Your task to perform on an android device: change keyboard looks Image 0: 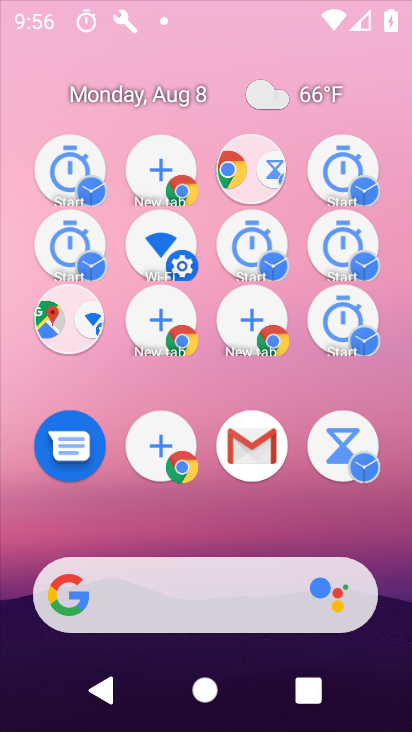
Step 0: drag from (199, 419) to (149, 110)
Your task to perform on an android device: change keyboard looks Image 1: 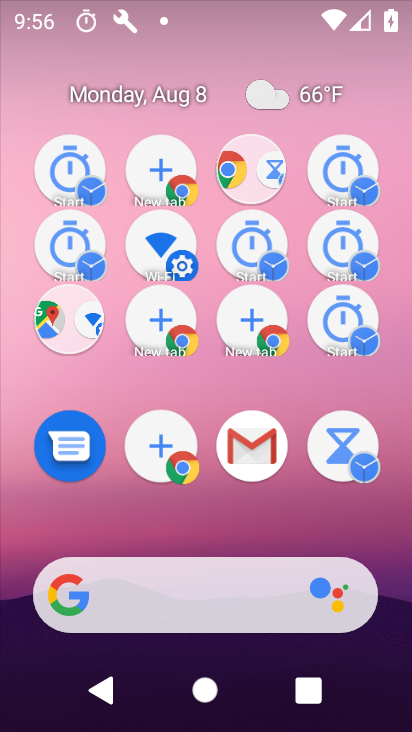
Step 1: drag from (214, 506) to (178, 177)
Your task to perform on an android device: change keyboard looks Image 2: 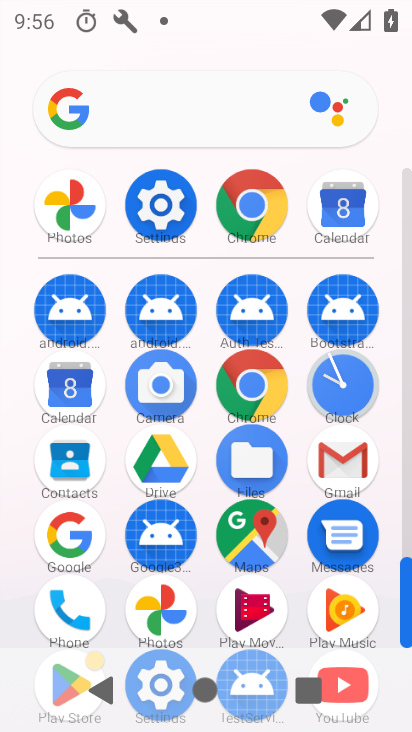
Step 2: click (168, 196)
Your task to perform on an android device: change keyboard looks Image 3: 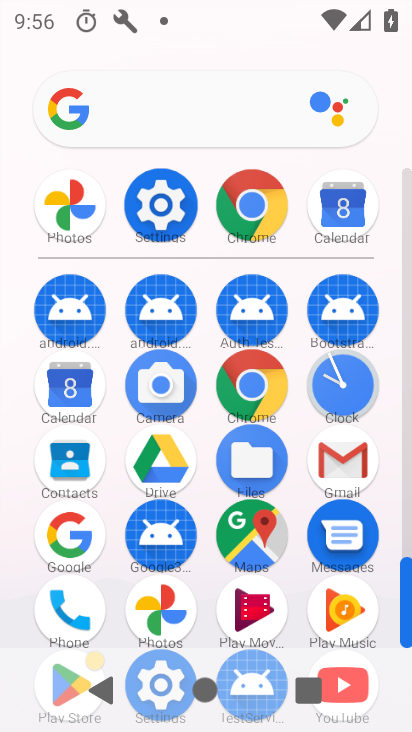
Step 3: click (169, 190)
Your task to perform on an android device: change keyboard looks Image 4: 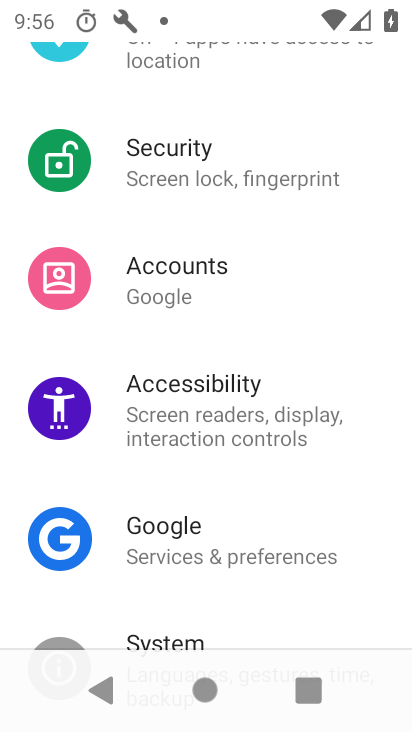
Step 4: click (165, 633)
Your task to perform on an android device: change keyboard looks Image 5: 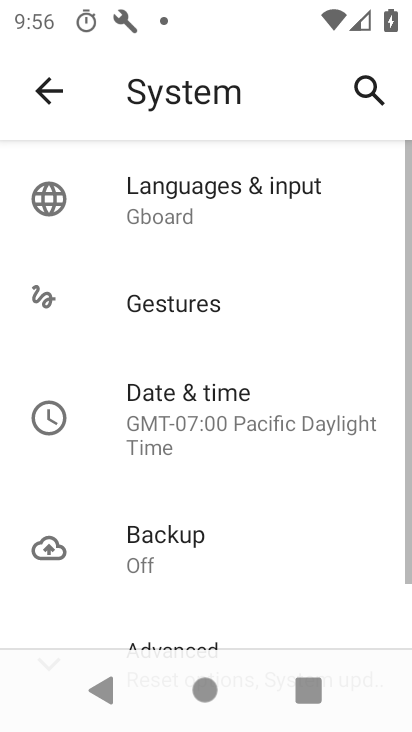
Step 5: click (171, 213)
Your task to perform on an android device: change keyboard looks Image 6: 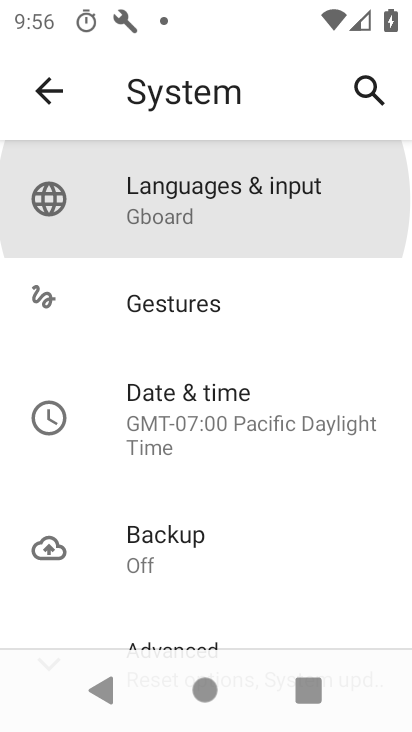
Step 6: click (170, 212)
Your task to perform on an android device: change keyboard looks Image 7: 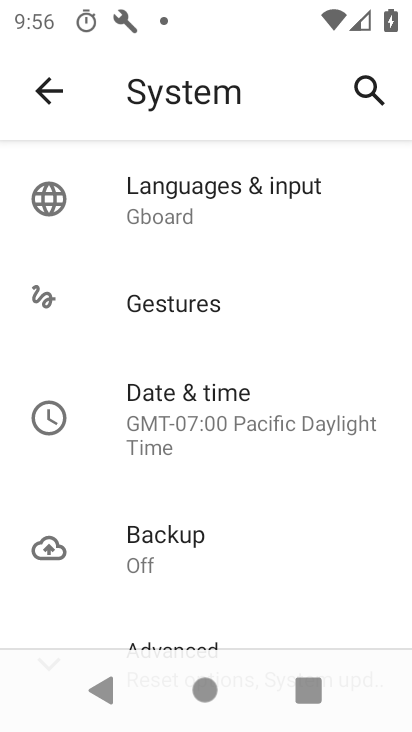
Step 7: click (170, 212)
Your task to perform on an android device: change keyboard looks Image 8: 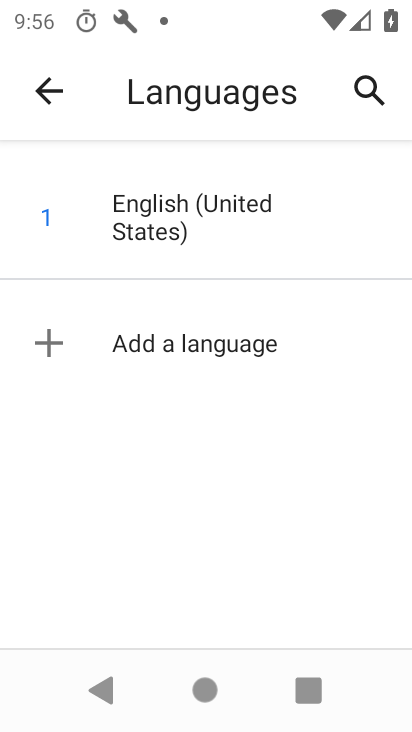
Step 8: click (44, 91)
Your task to perform on an android device: change keyboard looks Image 9: 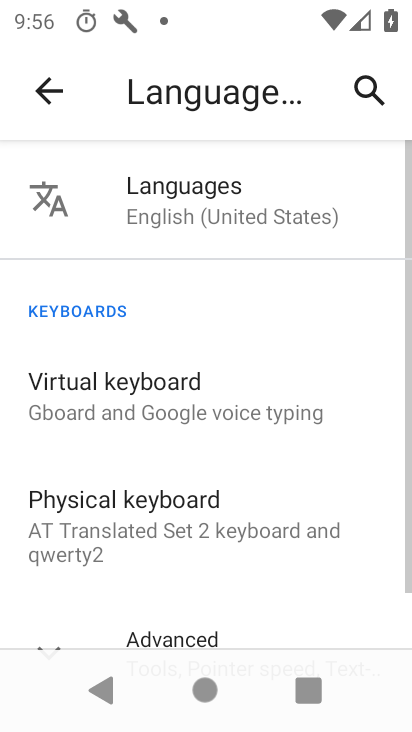
Step 9: click (80, 407)
Your task to perform on an android device: change keyboard looks Image 10: 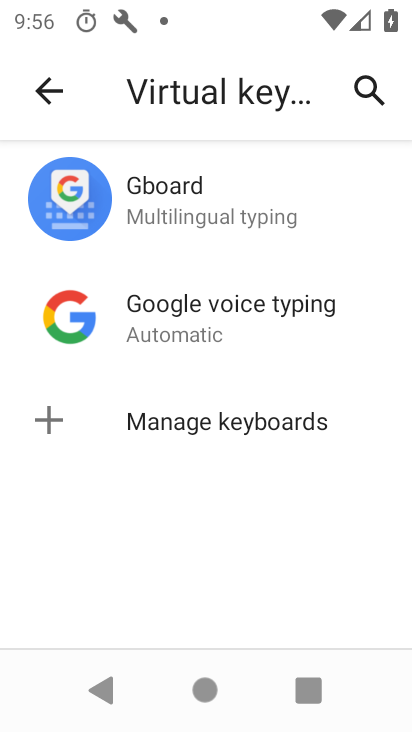
Step 10: click (150, 207)
Your task to perform on an android device: change keyboard looks Image 11: 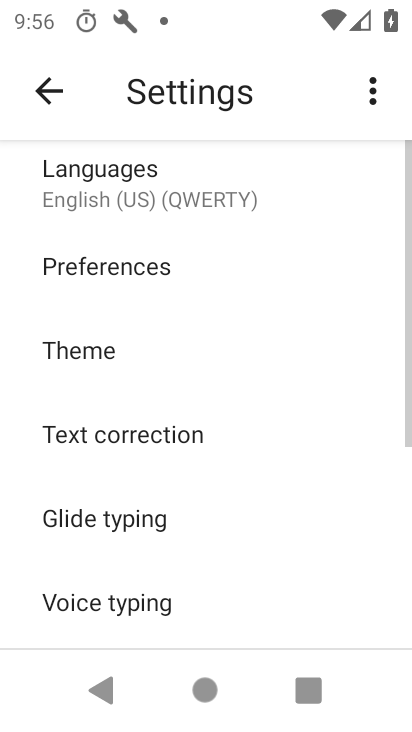
Step 11: click (67, 330)
Your task to perform on an android device: change keyboard looks Image 12: 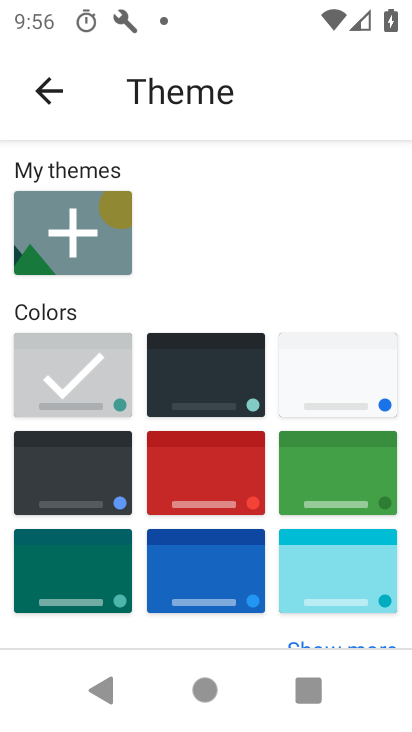
Step 12: click (74, 477)
Your task to perform on an android device: change keyboard looks Image 13: 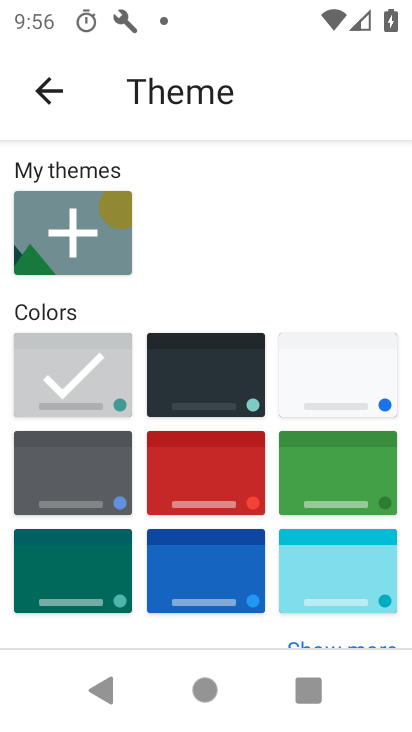
Step 13: click (74, 481)
Your task to perform on an android device: change keyboard looks Image 14: 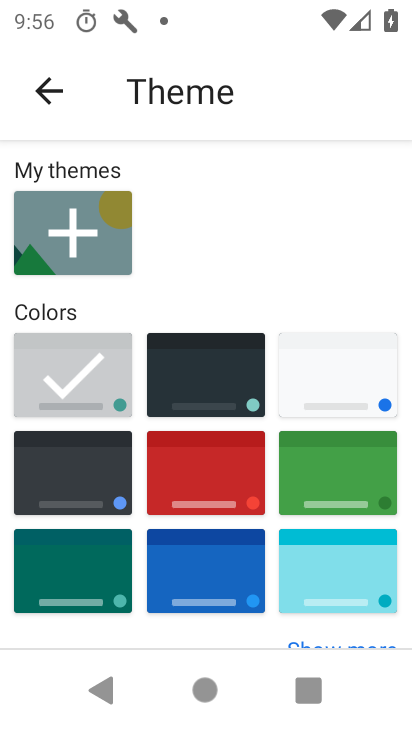
Step 14: click (79, 476)
Your task to perform on an android device: change keyboard looks Image 15: 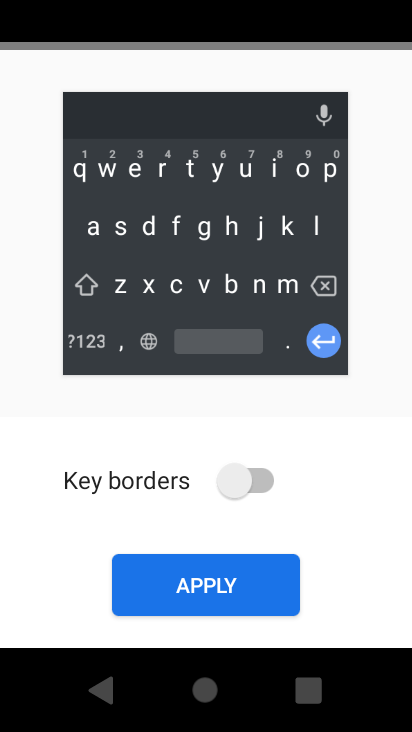
Step 15: click (232, 596)
Your task to perform on an android device: change keyboard looks Image 16: 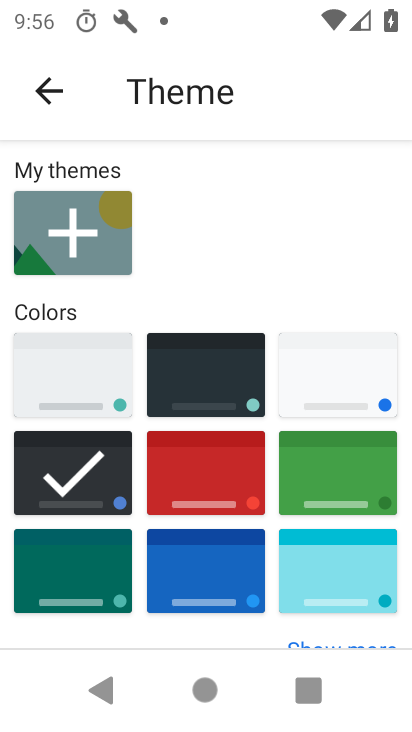
Step 16: task complete